Your task to perform on an android device: Check the weather Image 0: 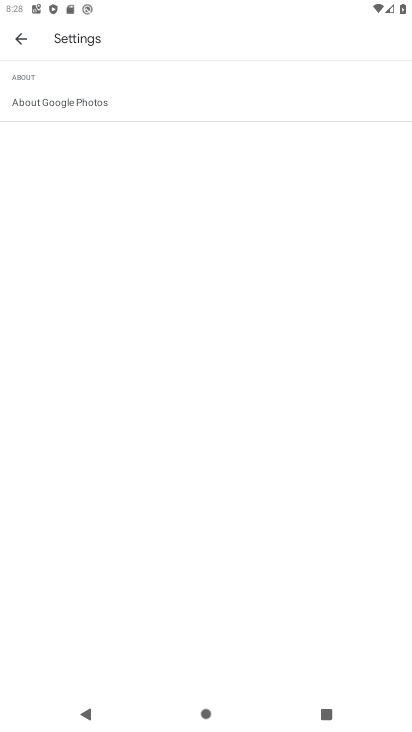
Step 0: press home button
Your task to perform on an android device: Check the weather Image 1: 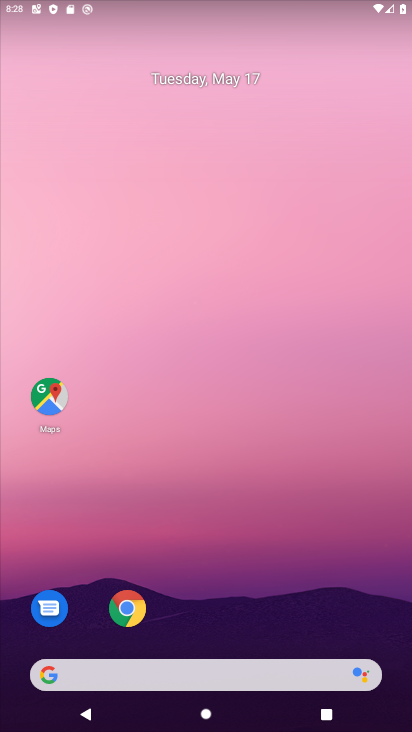
Step 1: click (184, 669)
Your task to perform on an android device: Check the weather Image 2: 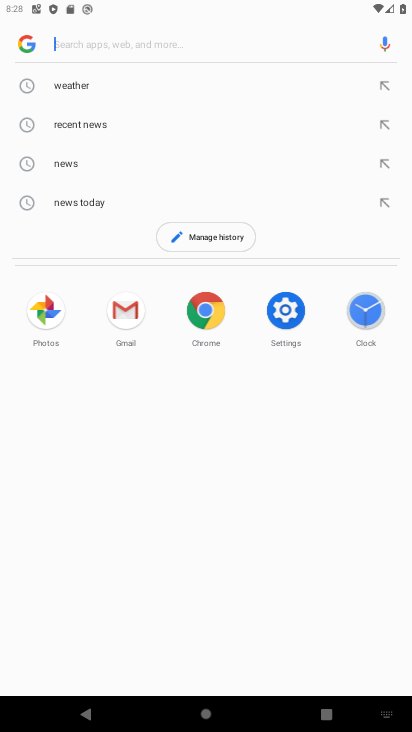
Step 2: click (135, 86)
Your task to perform on an android device: Check the weather Image 3: 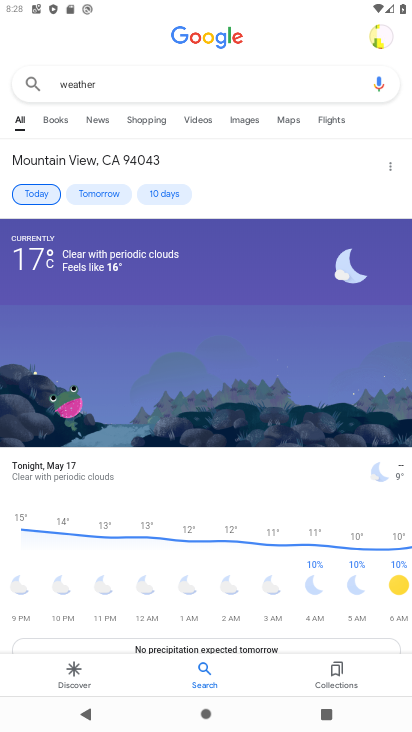
Step 3: task complete